Your task to perform on an android device: Search for sushi restaurants on Maps Image 0: 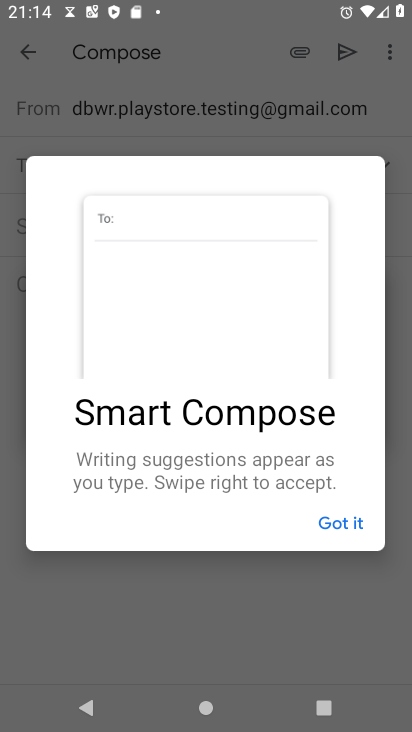
Step 0: press home button
Your task to perform on an android device: Search for sushi restaurants on Maps Image 1: 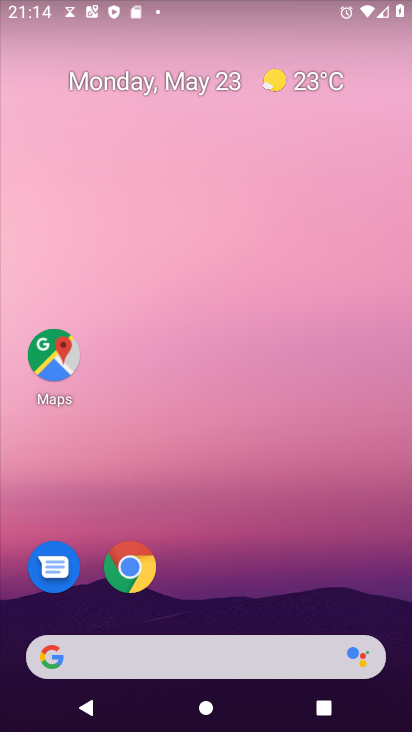
Step 1: click (51, 330)
Your task to perform on an android device: Search for sushi restaurants on Maps Image 2: 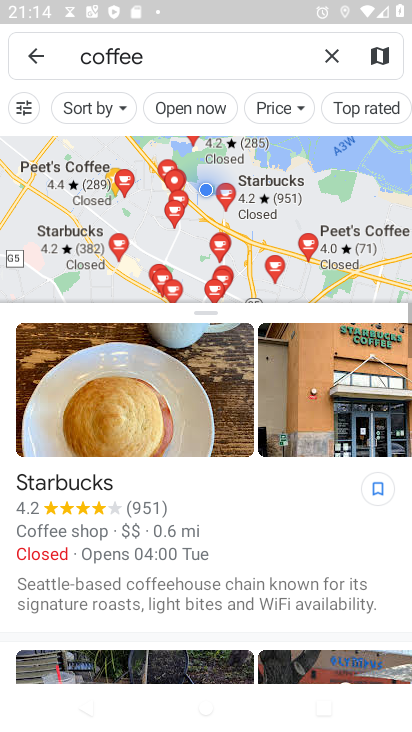
Step 2: click (319, 51)
Your task to perform on an android device: Search for sushi restaurants on Maps Image 3: 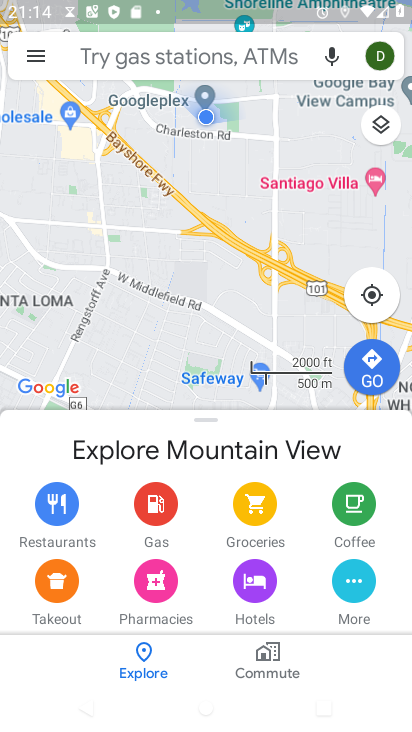
Step 3: click (189, 49)
Your task to perform on an android device: Search for sushi restaurants on Maps Image 4: 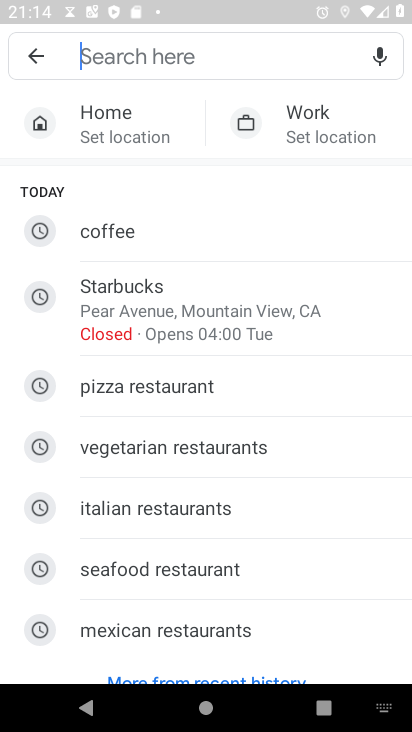
Step 4: drag from (180, 630) to (211, 430)
Your task to perform on an android device: Search for sushi restaurants on Maps Image 5: 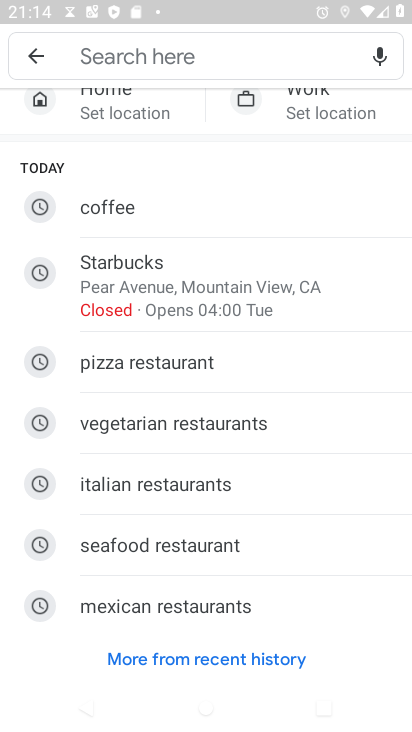
Step 5: click (233, 41)
Your task to perform on an android device: Search for sushi restaurants on Maps Image 6: 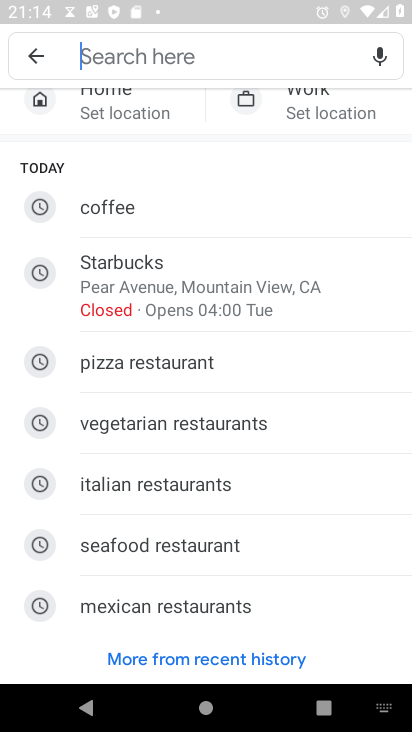
Step 6: type " sushi restaurants"
Your task to perform on an android device: Search for sushi restaurants on Maps Image 7: 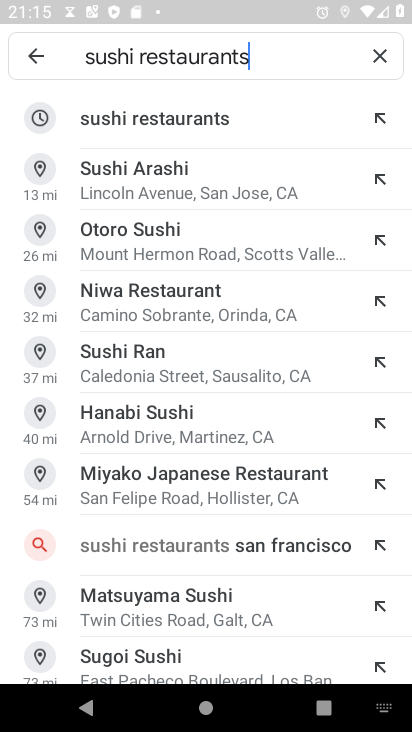
Step 7: click (160, 112)
Your task to perform on an android device: Search for sushi restaurants on Maps Image 8: 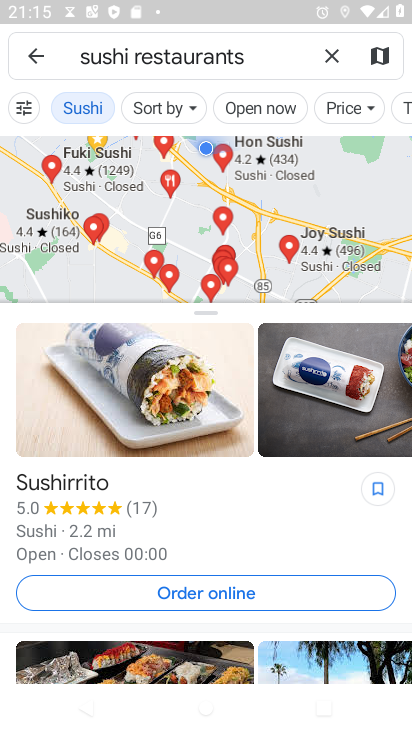
Step 8: task complete